Your task to perform on an android device: Open Google Image 0: 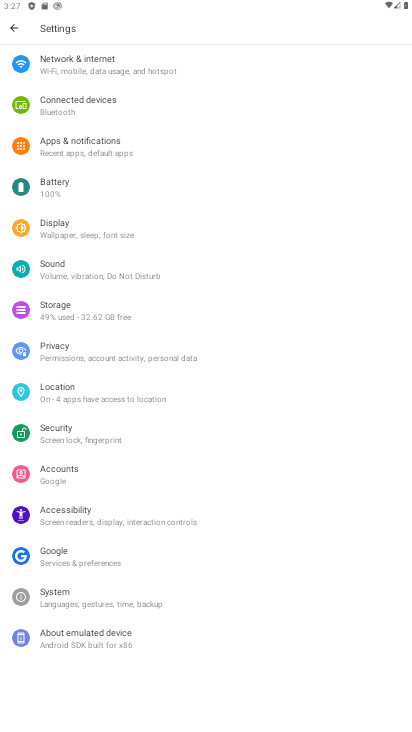
Step 0: press home button
Your task to perform on an android device: Open Google Image 1: 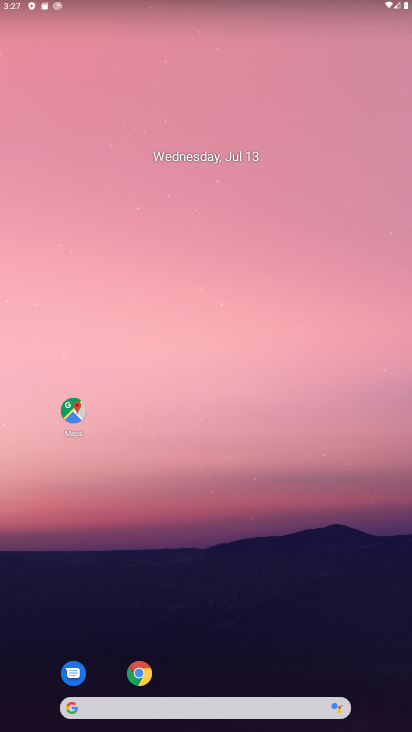
Step 1: drag from (197, 709) to (301, 136)
Your task to perform on an android device: Open Google Image 2: 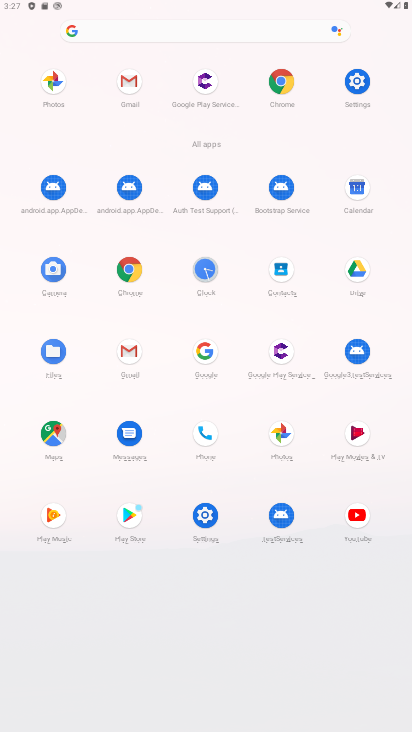
Step 2: click (208, 352)
Your task to perform on an android device: Open Google Image 3: 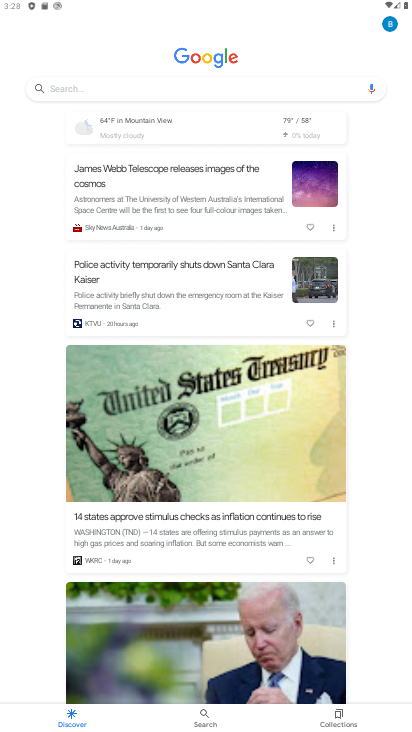
Step 3: task complete